Your task to perform on an android device: Open eBay Image 0: 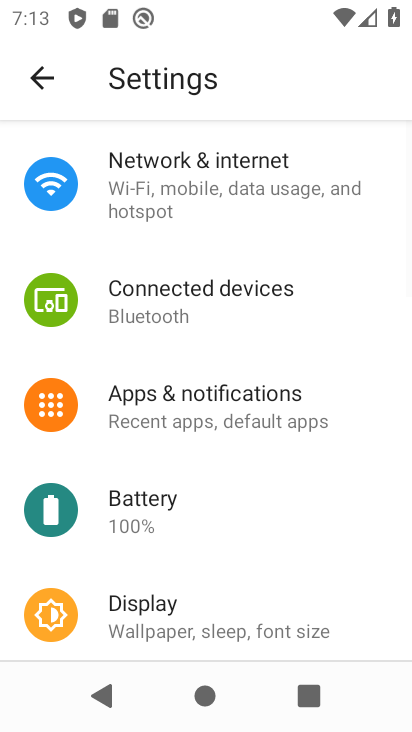
Step 0: press home button
Your task to perform on an android device: Open eBay Image 1: 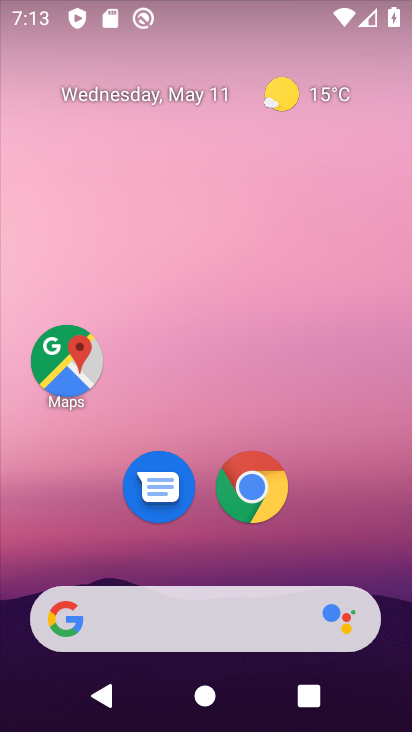
Step 1: drag from (289, 620) to (278, 143)
Your task to perform on an android device: Open eBay Image 2: 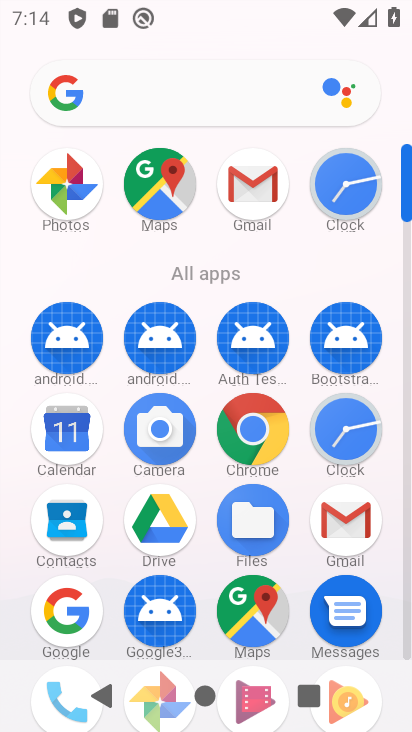
Step 2: click (239, 408)
Your task to perform on an android device: Open eBay Image 3: 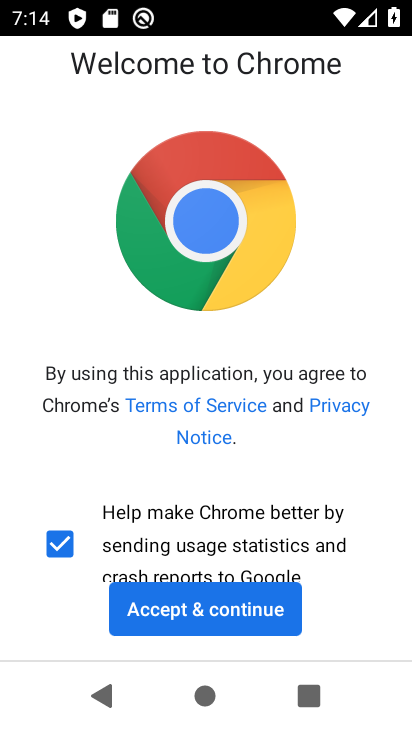
Step 3: click (248, 611)
Your task to perform on an android device: Open eBay Image 4: 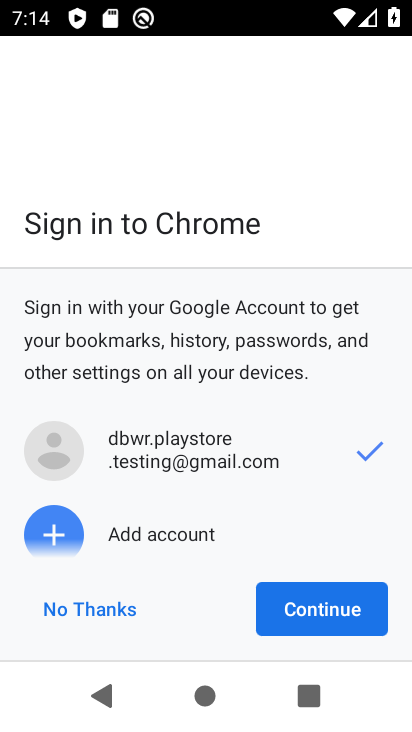
Step 4: click (300, 612)
Your task to perform on an android device: Open eBay Image 5: 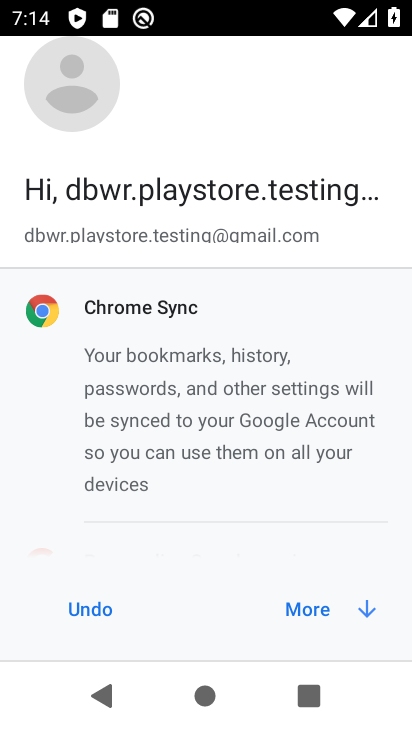
Step 5: click (382, 617)
Your task to perform on an android device: Open eBay Image 6: 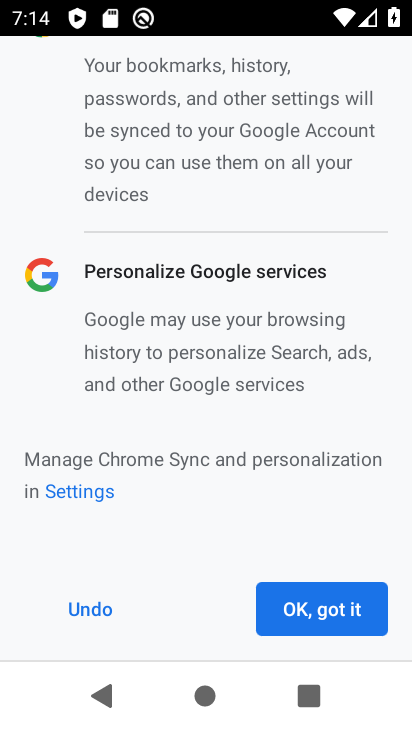
Step 6: click (323, 607)
Your task to perform on an android device: Open eBay Image 7: 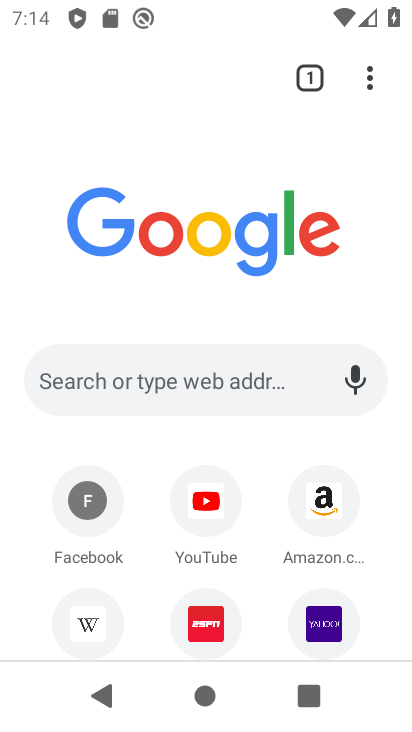
Step 7: click (175, 373)
Your task to perform on an android device: Open eBay Image 8: 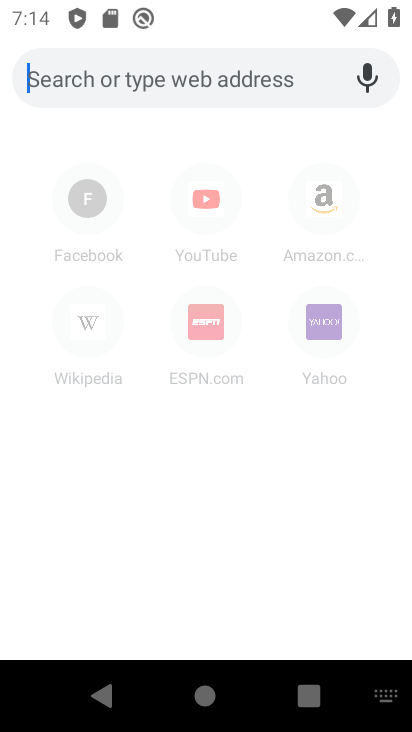
Step 8: click (385, 707)
Your task to perform on an android device: Open eBay Image 9: 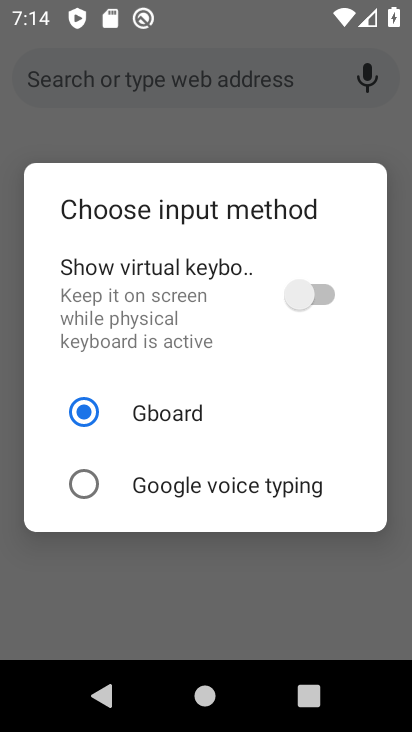
Step 9: click (311, 290)
Your task to perform on an android device: Open eBay Image 10: 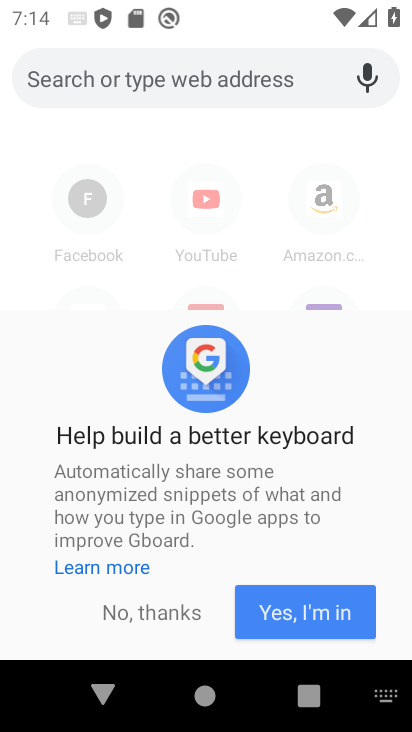
Step 10: click (164, 615)
Your task to perform on an android device: Open eBay Image 11: 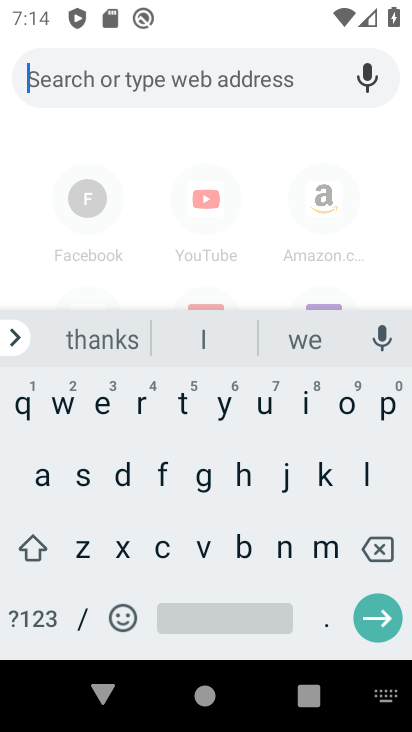
Step 11: click (101, 415)
Your task to perform on an android device: Open eBay Image 12: 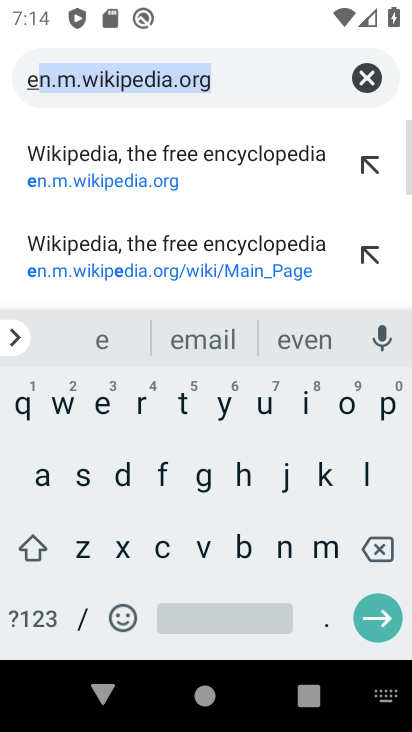
Step 12: click (238, 552)
Your task to perform on an android device: Open eBay Image 13: 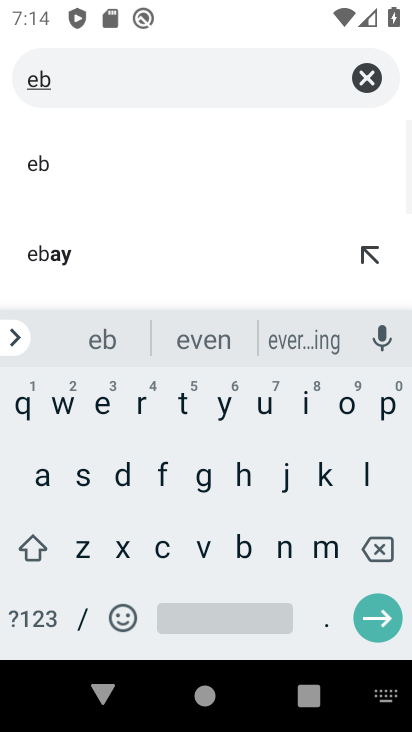
Step 13: click (65, 258)
Your task to perform on an android device: Open eBay Image 14: 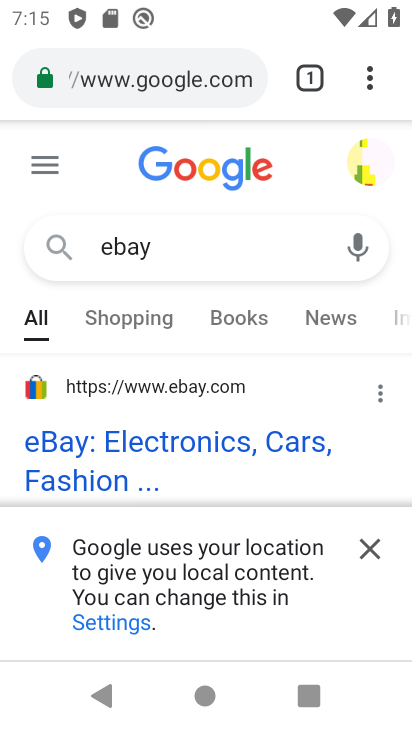
Step 14: click (383, 562)
Your task to perform on an android device: Open eBay Image 15: 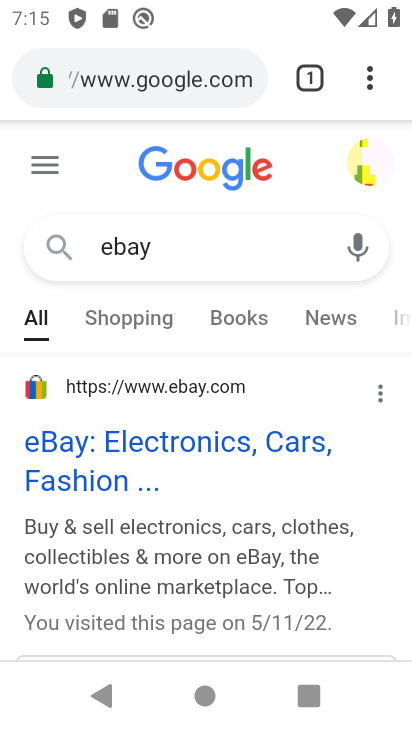
Step 15: click (153, 443)
Your task to perform on an android device: Open eBay Image 16: 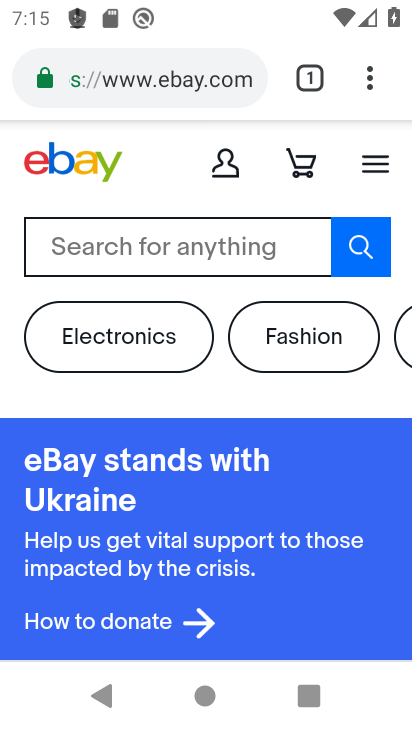
Step 16: task complete